Your task to perform on an android device: Go to battery settings Image 0: 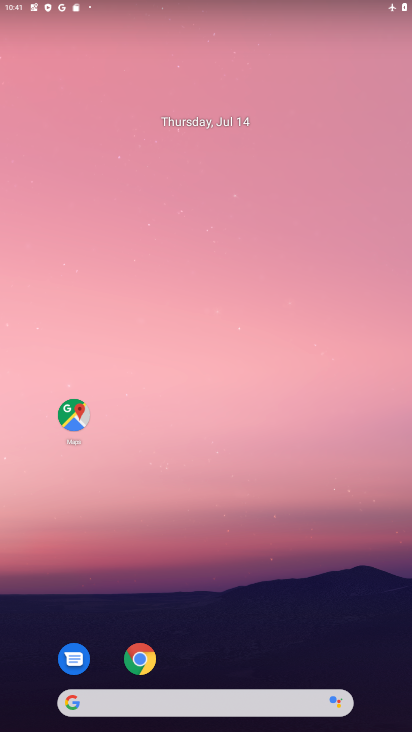
Step 0: drag from (258, 629) to (291, 119)
Your task to perform on an android device: Go to battery settings Image 1: 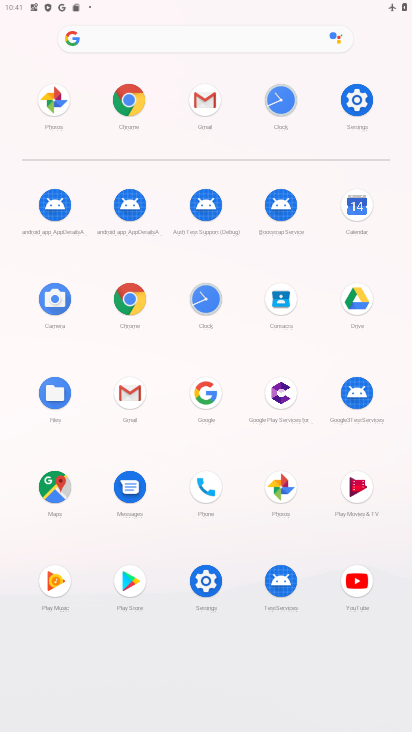
Step 1: click (353, 92)
Your task to perform on an android device: Go to battery settings Image 2: 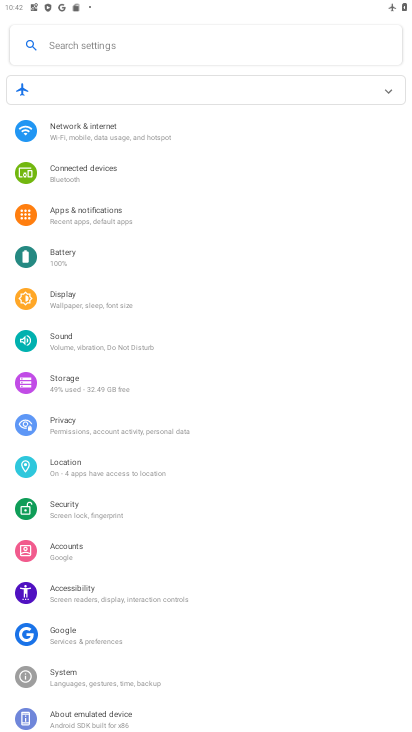
Step 2: click (64, 254)
Your task to perform on an android device: Go to battery settings Image 3: 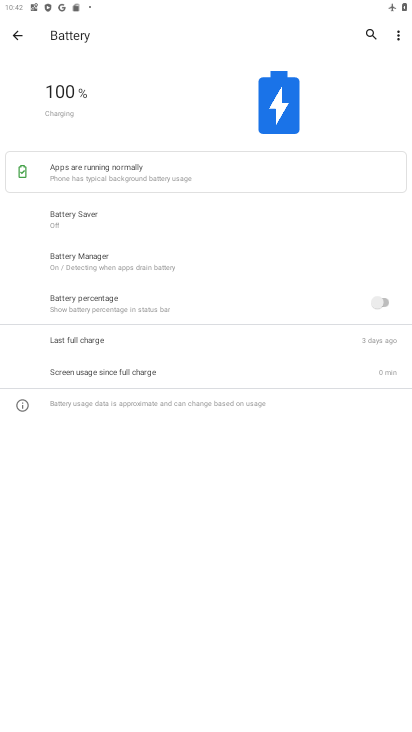
Step 3: task complete